Your task to perform on an android device: toggle wifi Image 0: 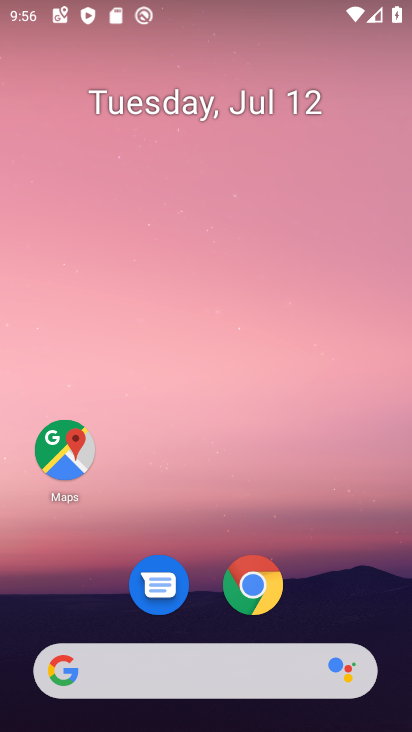
Step 0: drag from (173, 688) to (300, 0)
Your task to perform on an android device: toggle wifi Image 1: 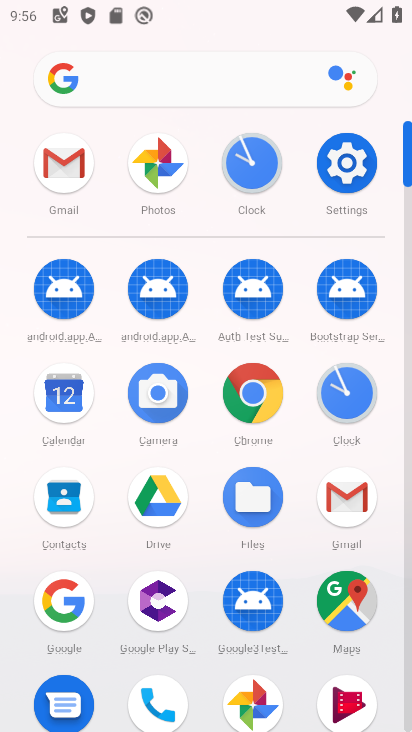
Step 1: click (341, 163)
Your task to perform on an android device: toggle wifi Image 2: 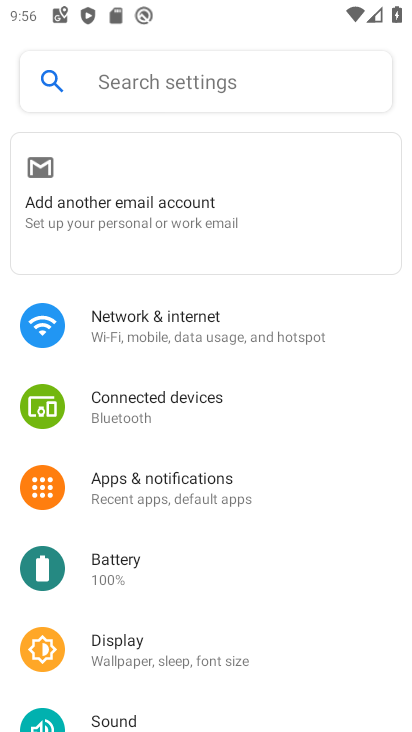
Step 2: click (217, 335)
Your task to perform on an android device: toggle wifi Image 3: 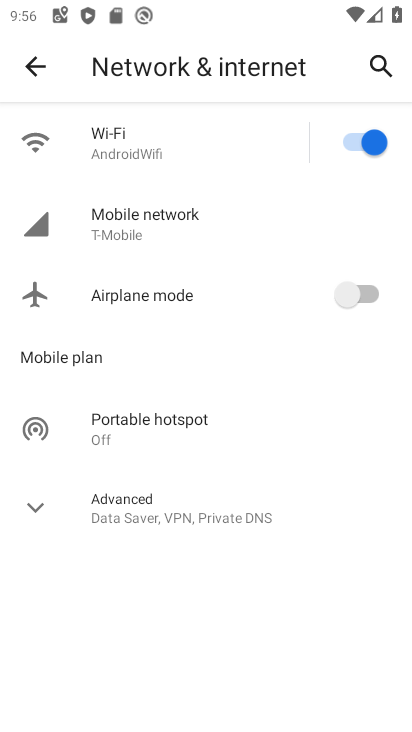
Step 3: click (354, 138)
Your task to perform on an android device: toggle wifi Image 4: 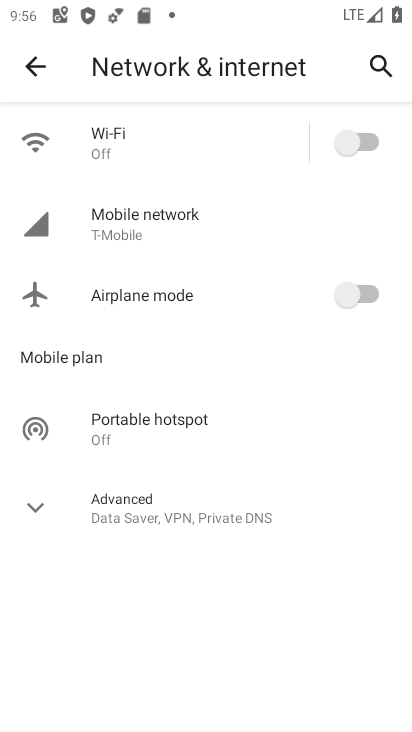
Step 4: task complete